Your task to perform on an android device: Is it going to rain tomorrow? Image 0: 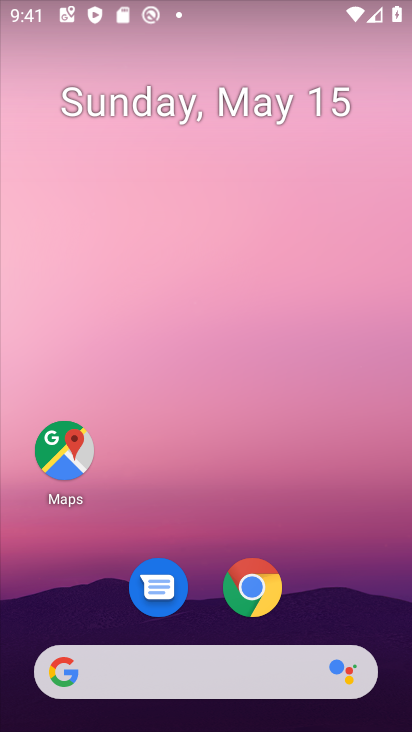
Step 0: drag from (368, 627) to (364, 33)
Your task to perform on an android device: Is it going to rain tomorrow? Image 1: 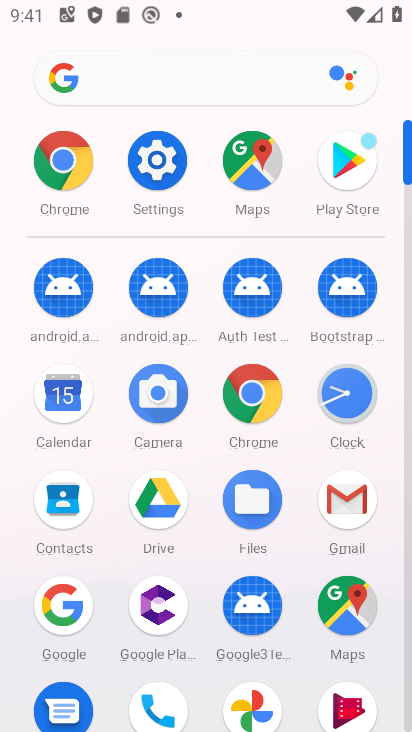
Step 1: click (83, 605)
Your task to perform on an android device: Is it going to rain tomorrow? Image 2: 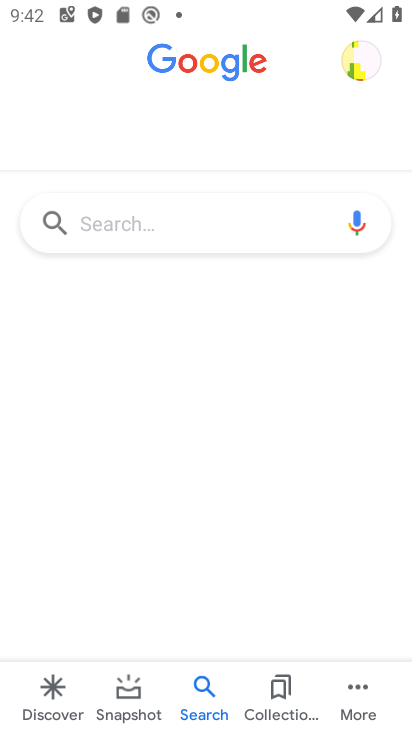
Step 2: click (143, 242)
Your task to perform on an android device: Is it going to rain tomorrow? Image 3: 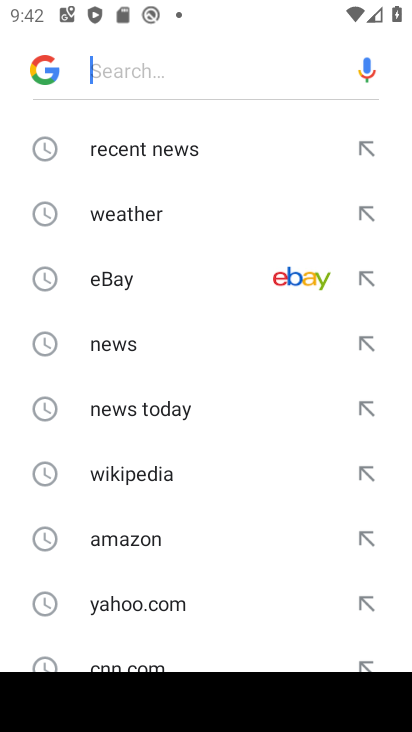
Step 3: drag from (185, 628) to (182, 139)
Your task to perform on an android device: Is it going to rain tomorrow? Image 4: 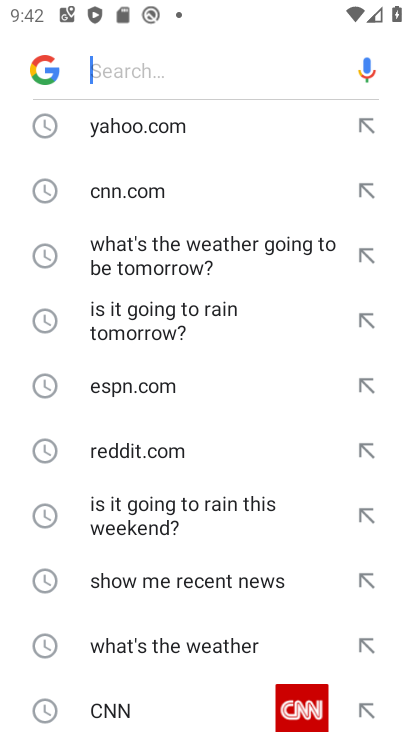
Step 4: click (201, 317)
Your task to perform on an android device: Is it going to rain tomorrow? Image 5: 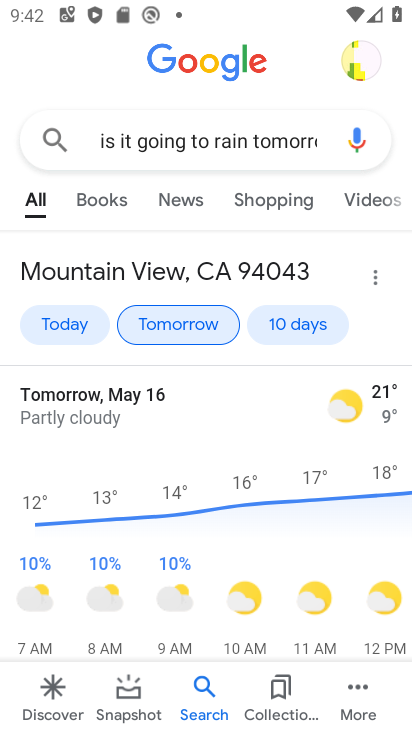
Step 5: task complete